Your task to perform on an android device: turn smart compose on in the gmail app Image 0: 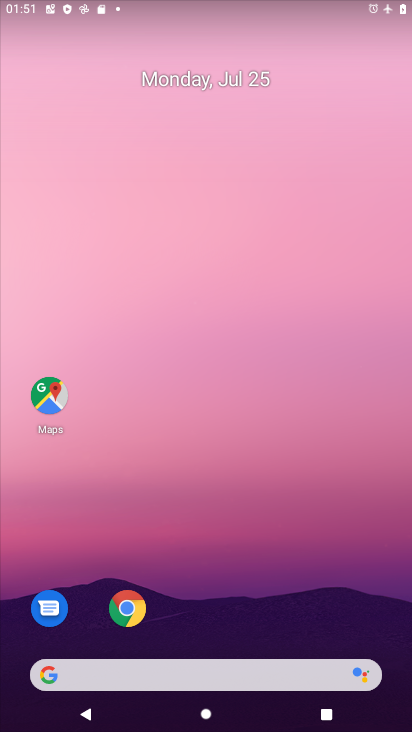
Step 0: drag from (225, 636) to (185, 42)
Your task to perform on an android device: turn smart compose on in the gmail app Image 1: 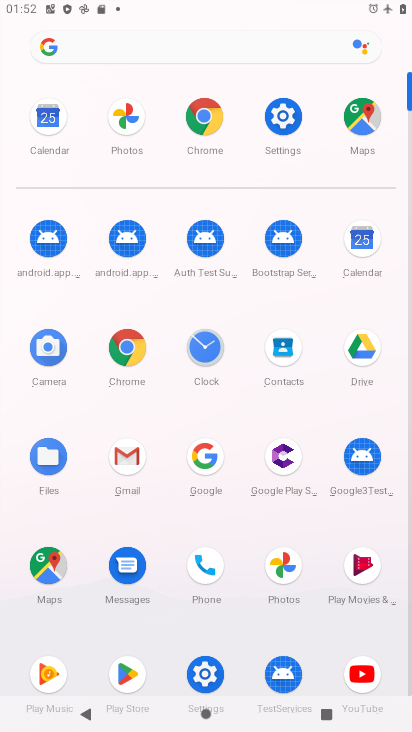
Step 1: click (137, 479)
Your task to perform on an android device: turn smart compose on in the gmail app Image 2: 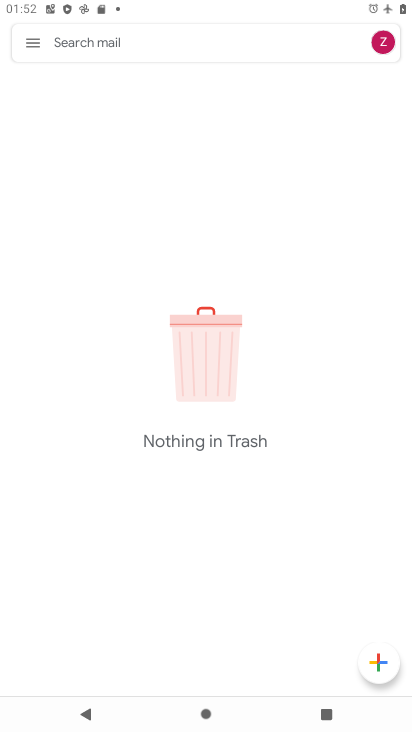
Step 2: click (31, 44)
Your task to perform on an android device: turn smart compose on in the gmail app Image 3: 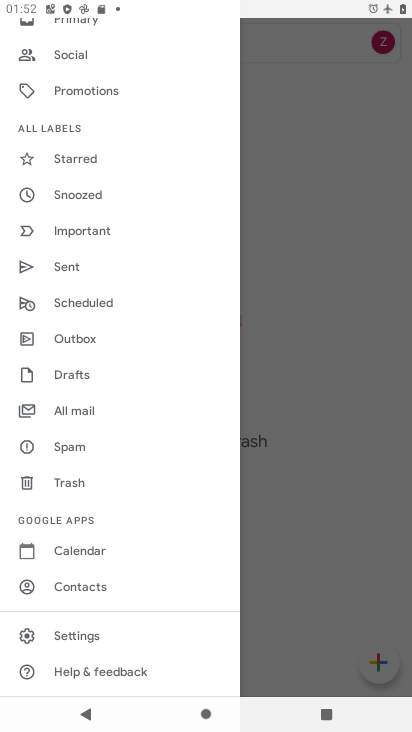
Step 3: click (77, 632)
Your task to perform on an android device: turn smart compose on in the gmail app Image 4: 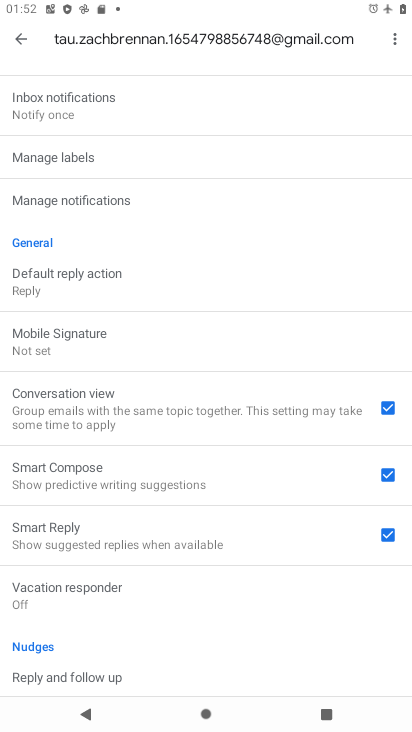
Step 4: task complete